Your task to perform on an android device: When is my next meeting? Image 0: 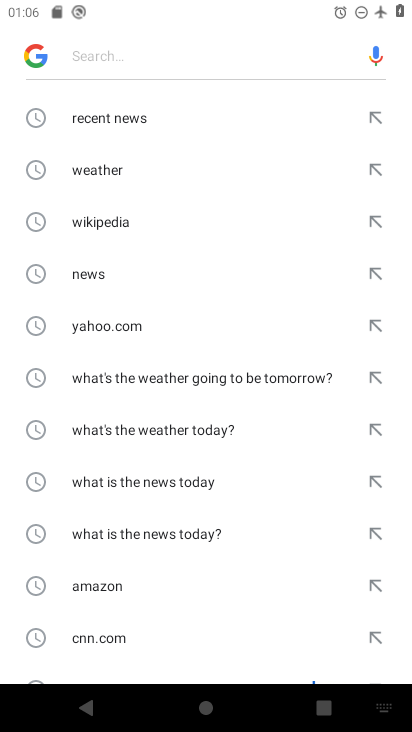
Step 0: press home button
Your task to perform on an android device: When is my next meeting? Image 1: 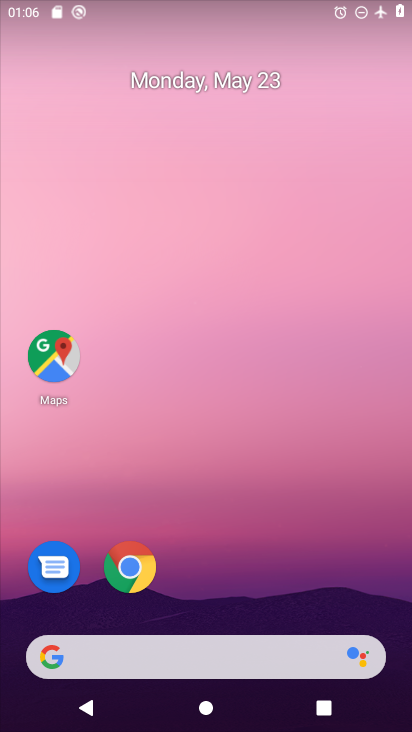
Step 1: drag from (197, 597) to (208, 189)
Your task to perform on an android device: When is my next meeting? Image 2: 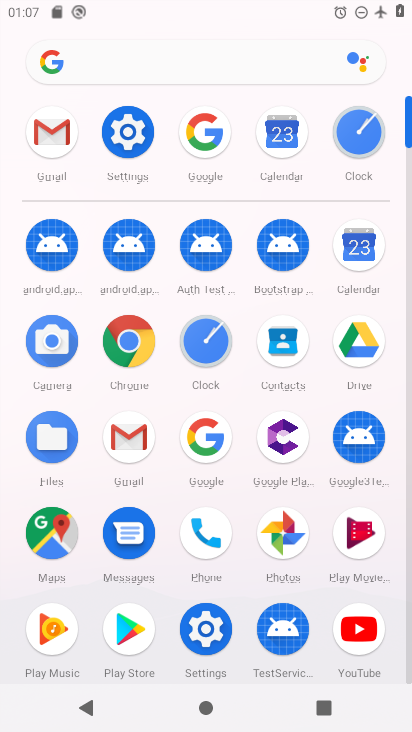
Step 2: click (328, 243)
Your task to perform on an android device: When is my next meeting? Image 3: 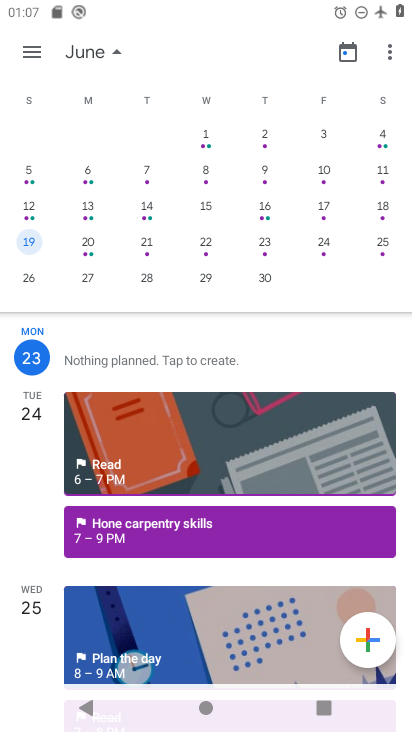
Step 3: task complete